Your task to perform on an android device: toggle location history Image 0: 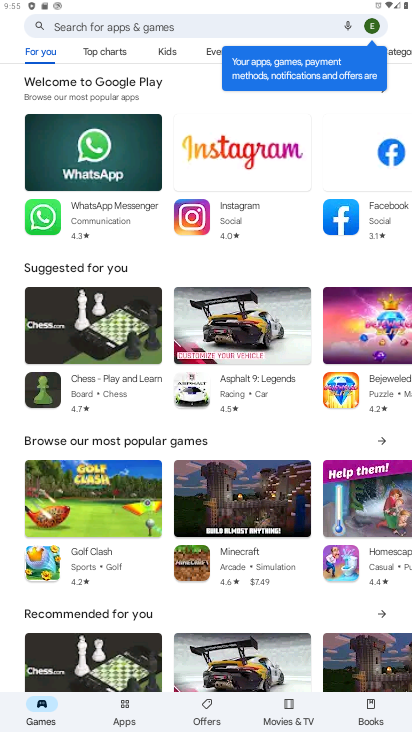
Step 0: press home button
Your task to perform on an android device: toggle location history Image 1: 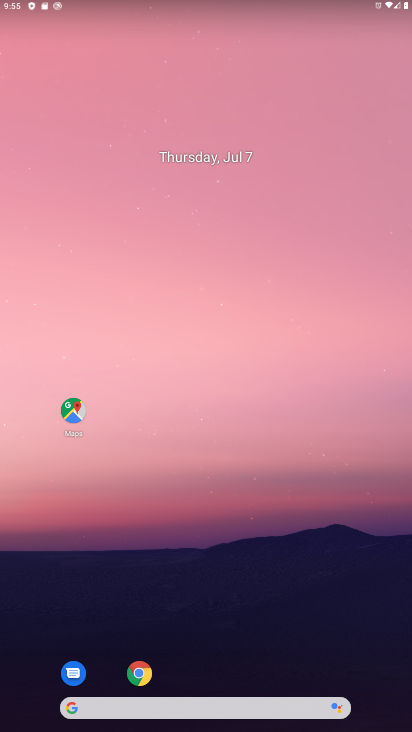
Step 1: drag from (228, 586) to (242, 49)
Your task to perform on an android device: toggle location history Image 2: 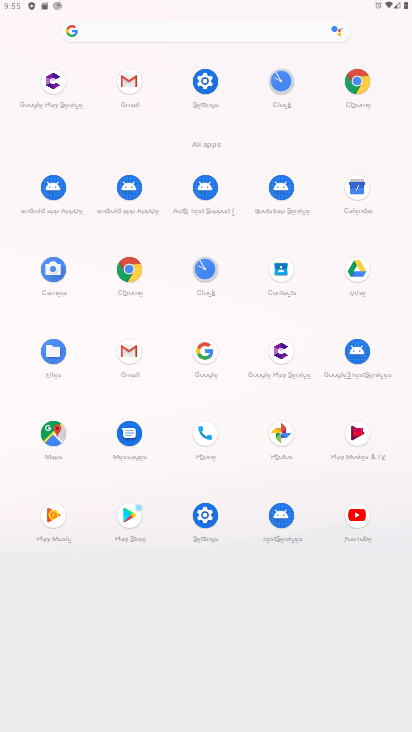
Step 2: click (131, 276)
Your task to perform on an android device: toggle location history Image 3: 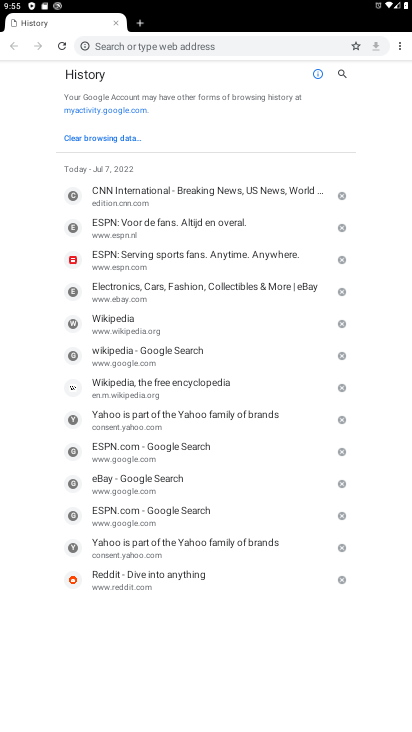
Step 3: press home button
Your task to perform on an android device: toggle location history Image 4: 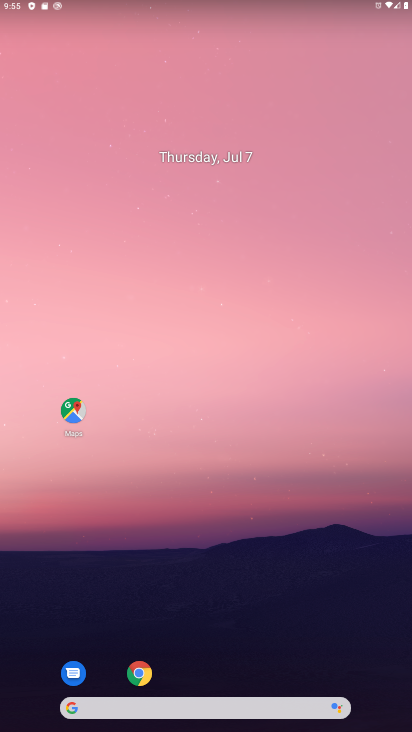
Step 4: drag from (178, 474) to (219, 25)
Your task to perform on an android device: toggle location history Image 5: 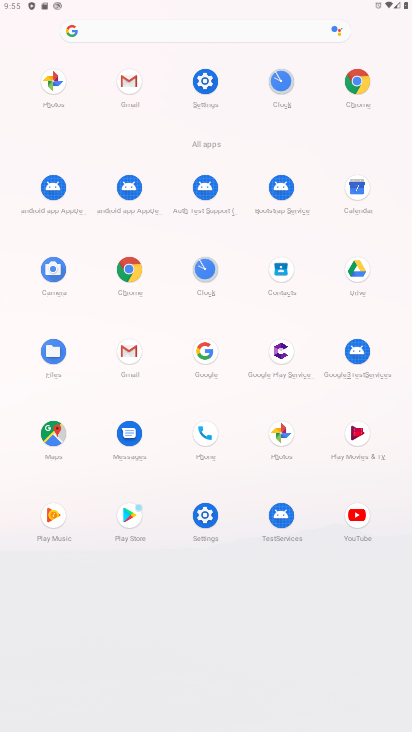
Step 5: click (209, 524)
Your task to perform on an android device: toggle location history Image 6: 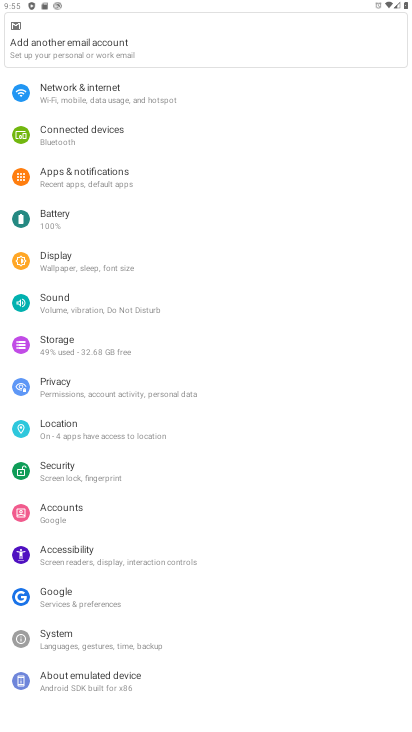
Step 6: click (85, 426)
Your task to perform on an android device: toggle location history Image 7: 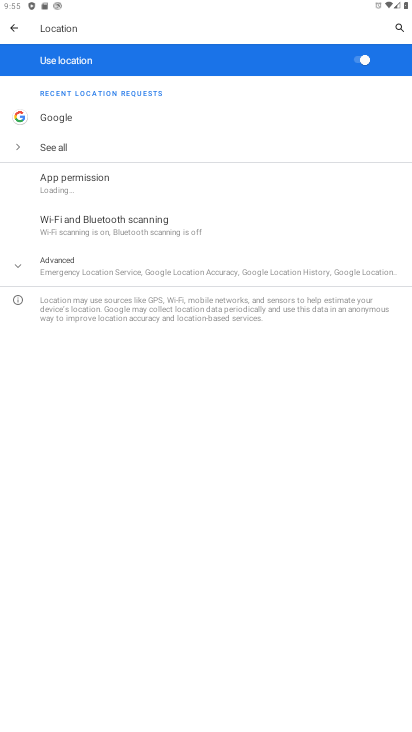
Step 7: click (113, 267)
Your task to perform on an android device: toggle location history Image 8: 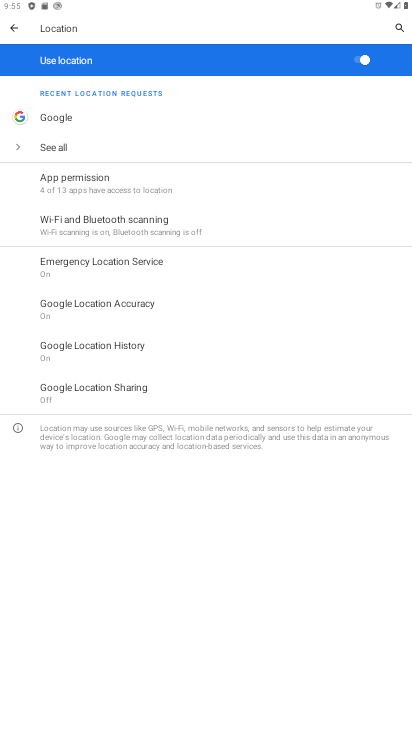
Step 8: click (112, 350)
Your task to perform on an android device: toggle location history Image 9: 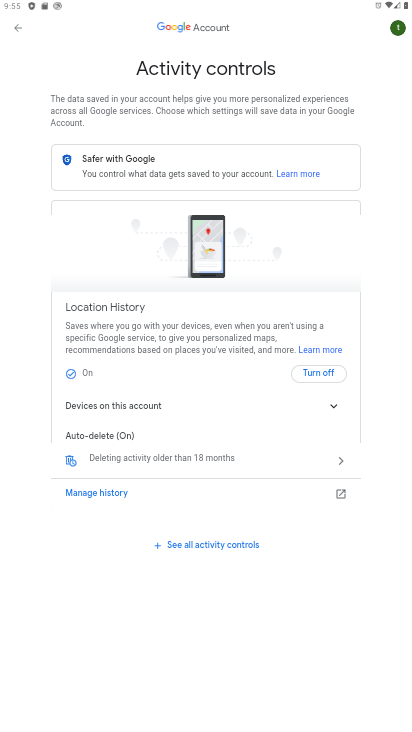
Step 9: click (318, 372)
Your task to perform on an android device: toggle location history Image 10: 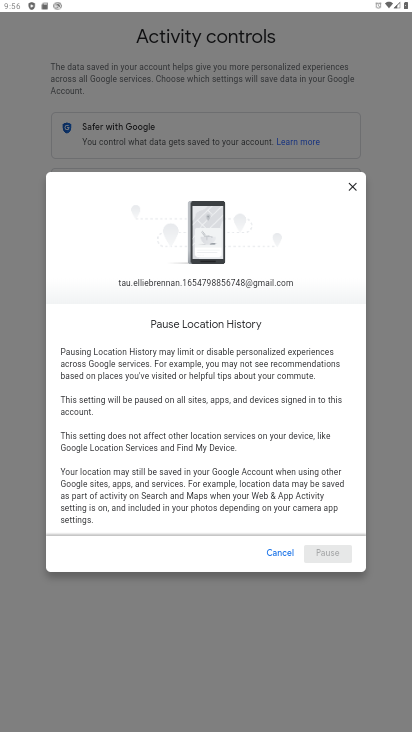
Step 10: drag from (260, 490) to (255, 342)
Your task to perform on an android device: toggle location history Image 11: 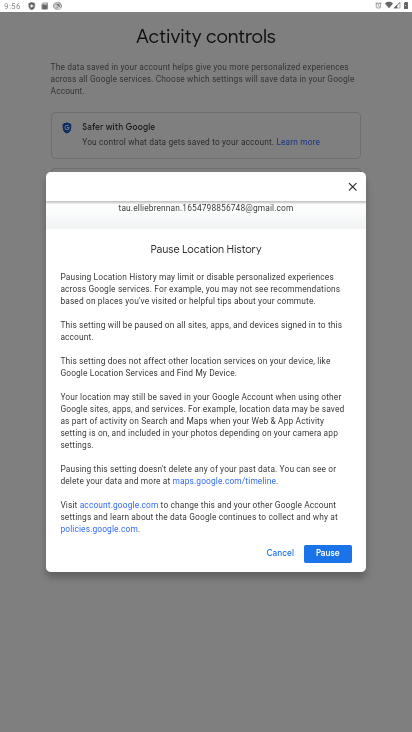
Step 11: click (333, 556)
Your task to perform on an android device: toggle location history Image 12: 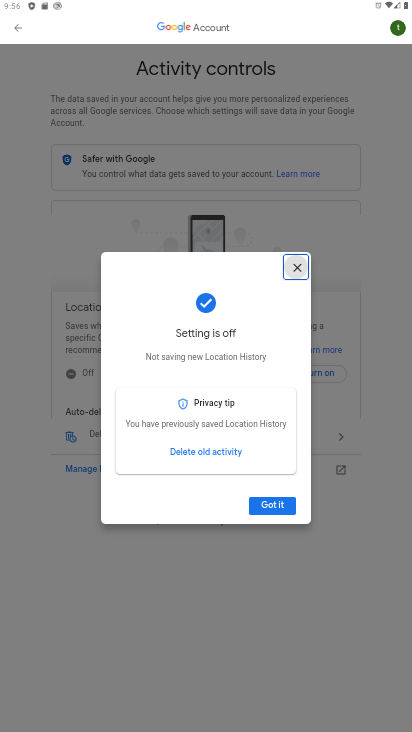
Step 12: click (261, 508)
Your task to perform on an android device: toggle location history Image 13: 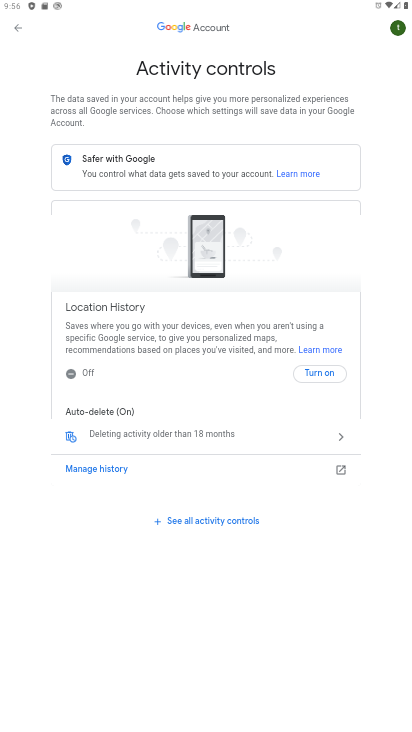
Step 13: task complete